Your task to perform on an android device: show emergency info Image 0: 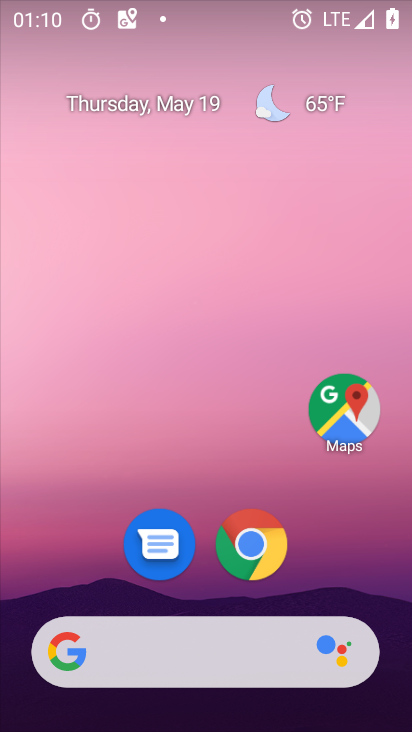
Step 0: drag from (374, 584) to (371, 154)
Your task to perform on an android device: show emergency info Image 1: 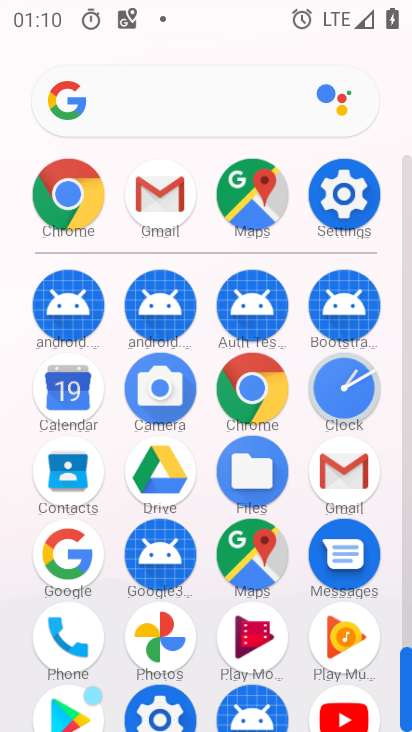
Step 1: click (344, 212)
Your task to perform on an android device: show emergency info Image 2: 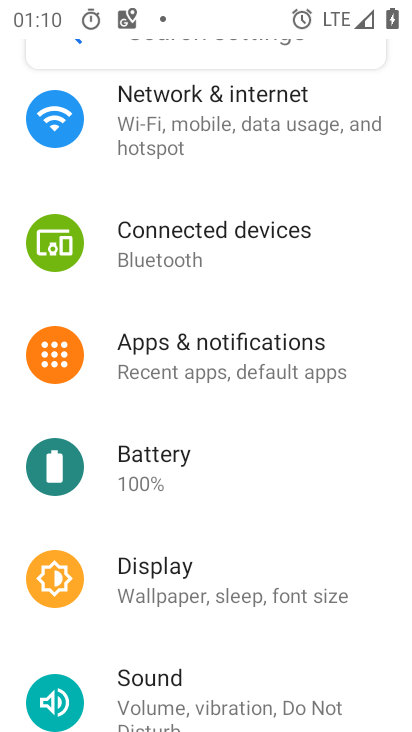
Step 2: drag from (364, 264) to (364, 384)
Your task to perform on an android device: show emergency info Image 3: 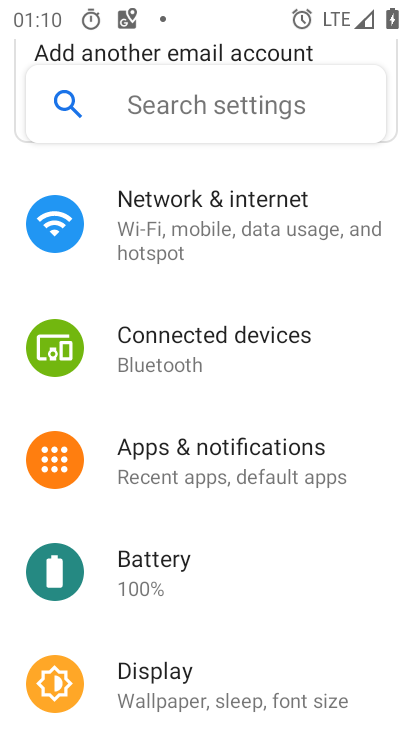
Step 3: drag from (368, 182) to (368, 332)
Your task to perform on an android device: show emergency info Image 4: 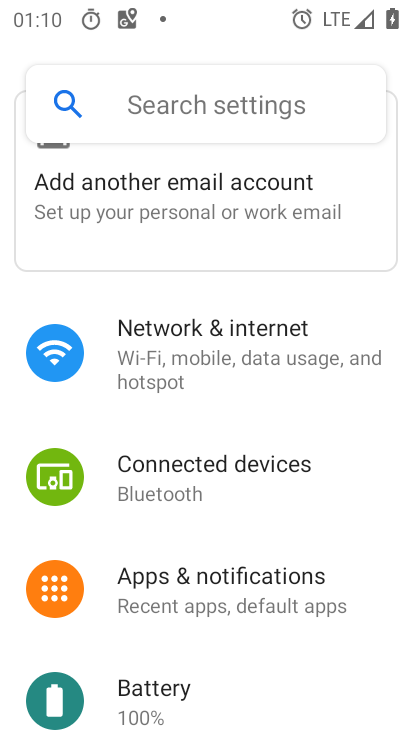
Step 4: drag from (376, 172) to (375, 340)
Your task to perform on an android device: show emergency info Image 5: 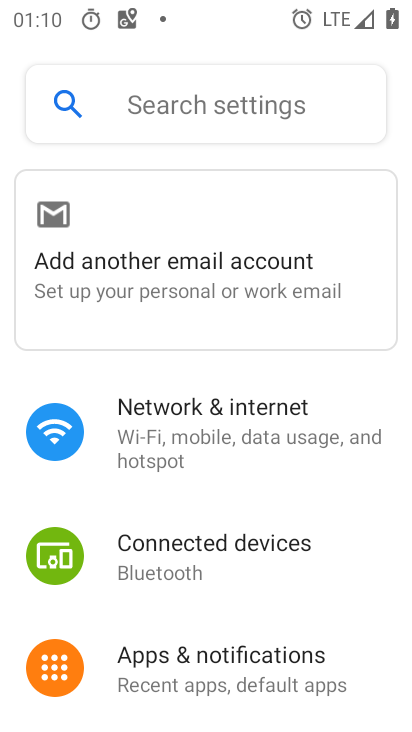
Step 5: drag from (367, 598) to (355, 449)
Your task to perform on an android device: show emergency info Image 6: 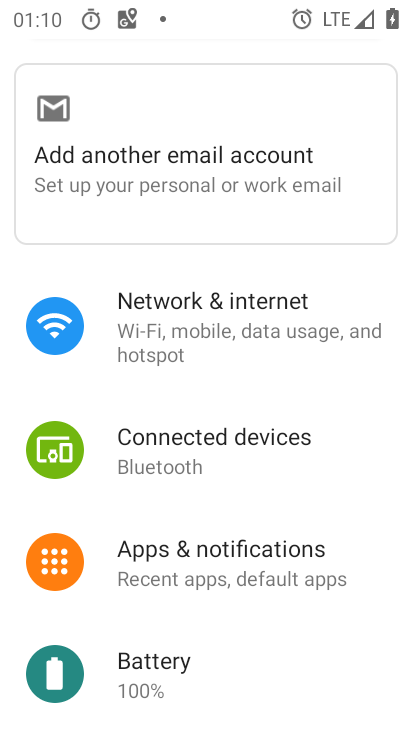
Step 6: drag from (358, 650) to (368, 520)
Your task to perform on an android device: show emergency info Image 7: 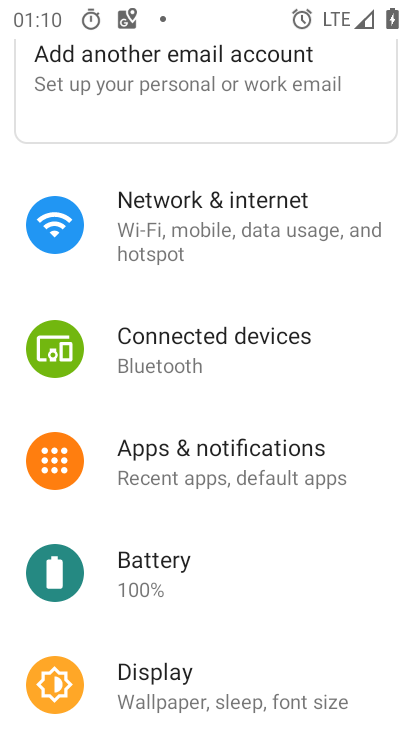
Step 7: drag from (349, 661) to (347, 518)
Your task to perform on an android device: show emergency info Image 8: 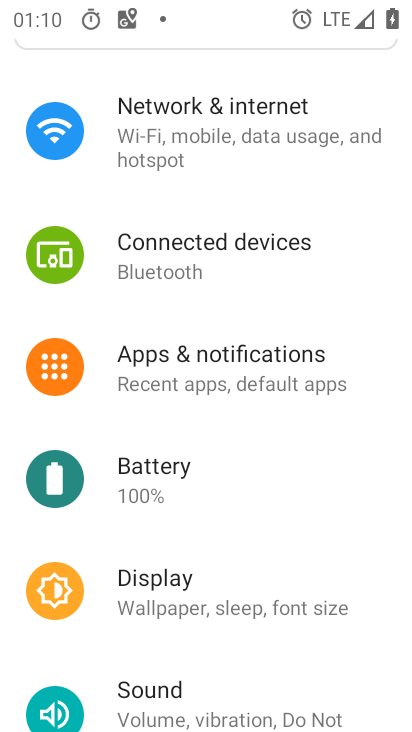
Step 8: drag from (350, 660) to (355, 493)
Your task to perform on an android device: show emergency info Image 9: 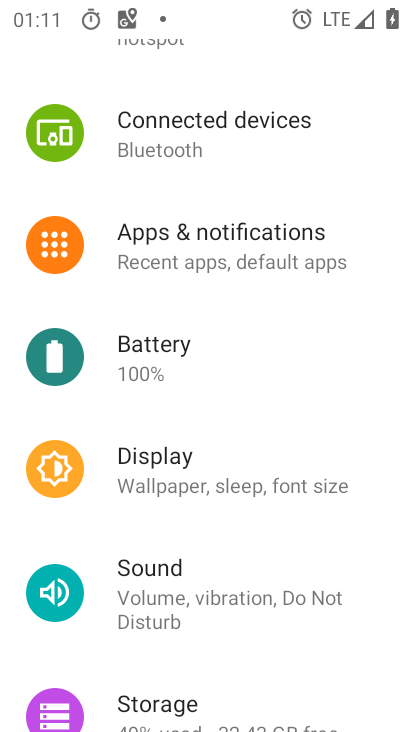
Step 9: drag from (354, 655) to (349, 551)
Your task to perform on an android device: show emergency info Image 10: 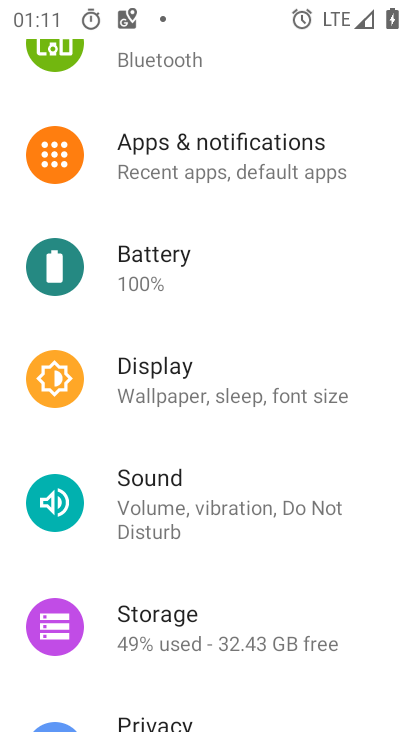
Step 10: drag from (342, 661) to (336, 480)
Your task to perform on an android device: show emergency info Image 11: 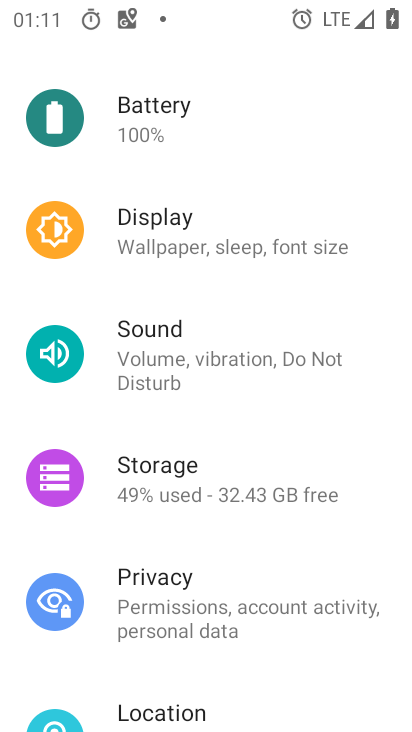
Step 11: drag from (345, 652) to (361, 524)
Your task to perform on an android device: show emergency info Image 12: 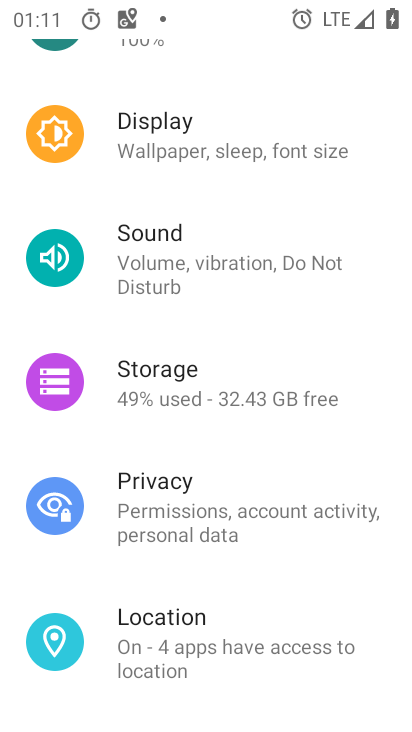
Step 12: drag from (344, 670) to (347, 553)
Your task to perform on an android device: show emergency info Image 13: 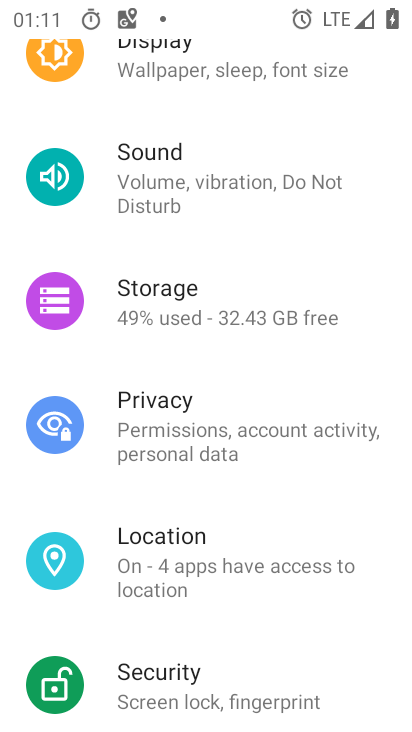
Step 13: drag from (329, 664) to (315, 558)
Your task to perform on an android device: show emergency info Image 14: 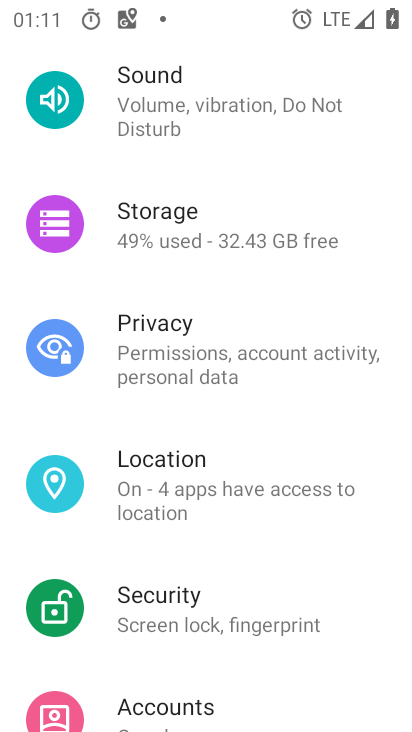
Step 14: drag from (333, 671) to (333, 565)
Your task to perform on an android device: show emergency info Image 15: 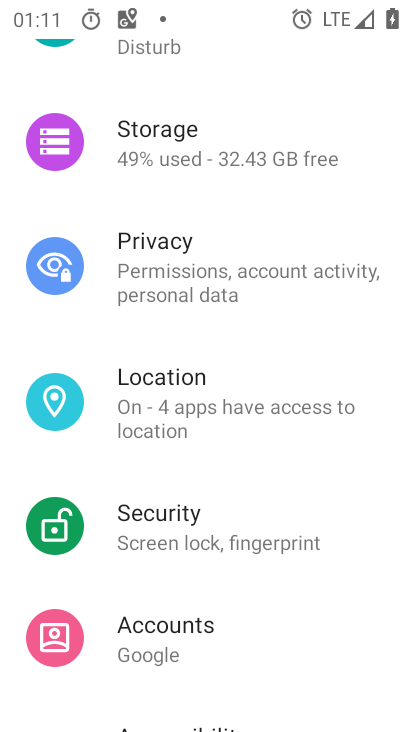
Step 15: drag from (330, 677) to (327, 548)
Your task to perform on an android device: show emergency info Image 16: 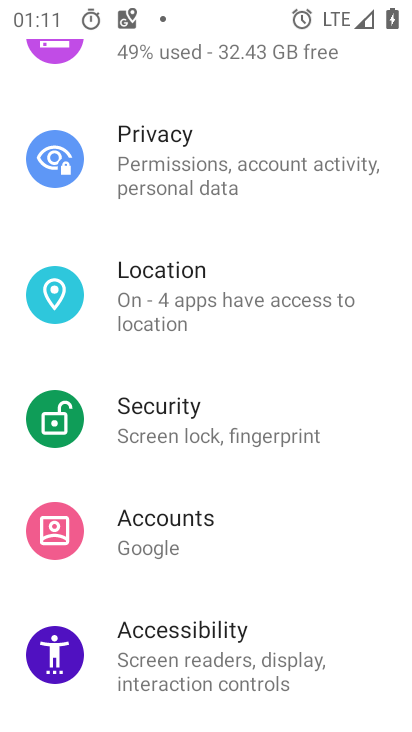
Step 16: drag from (363, 635) to (350, 496)
Your task to perform on an android device: show emergency info Image 17: 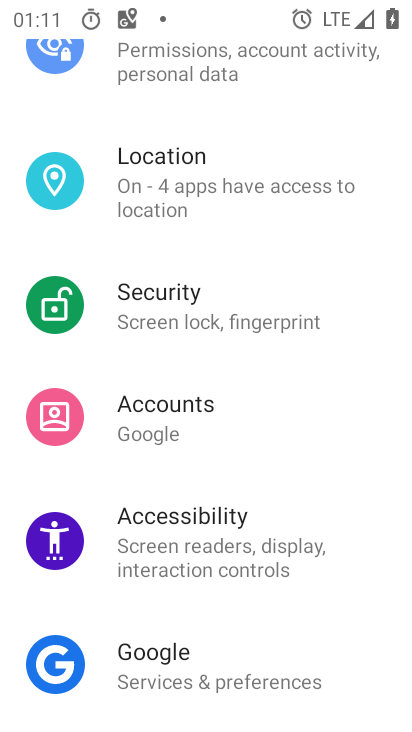
Step 17: drag from (344, 643) to (338, 506)
Your task to perform on an android device: show emergency info Image 18: 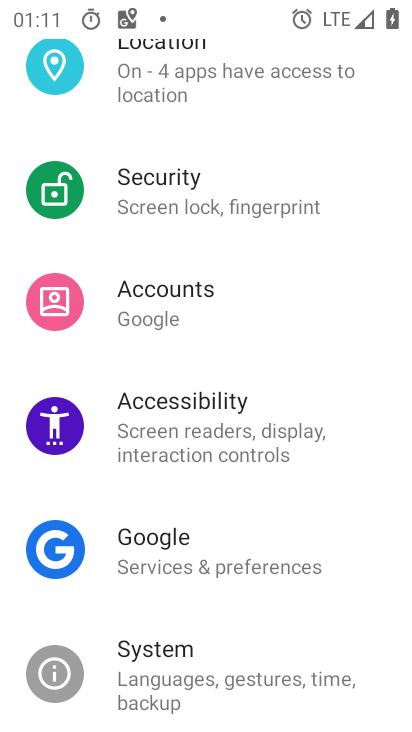
Step 18: drag from (338, 646) to (330, 512)
Your task to perform on an android device: show emergency info Image 19: 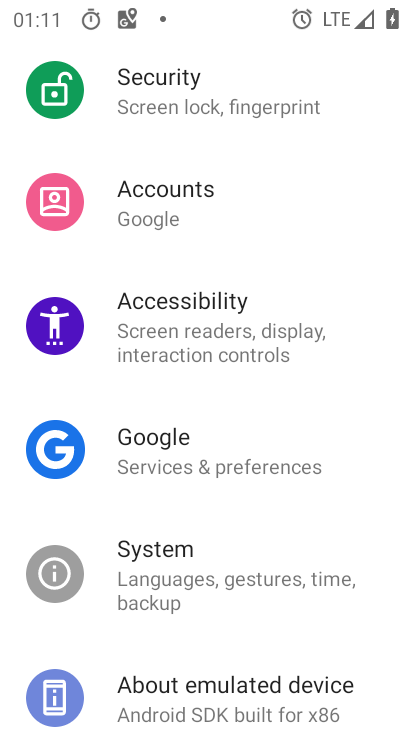
Step 19: drag from (345, 643) to (348, 491)
Your task to perform on an android device: show emergency info Image 20: 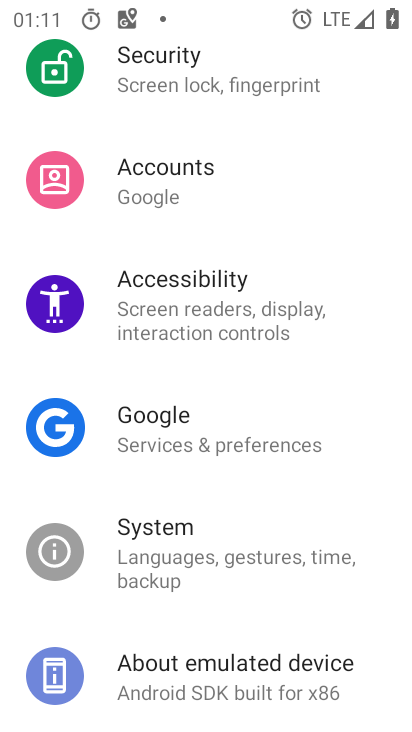
Step 20: click (186, 689)
Your task to perform on an android device: show emergency info Image 21: 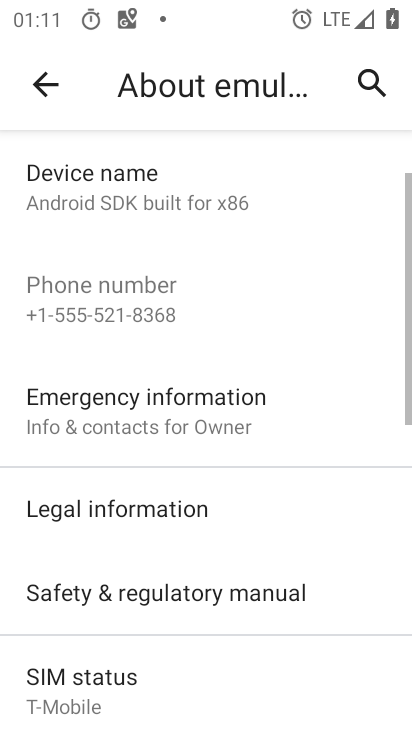
Step 21: drag from (287, 656) to (300, 525)
Your task to perform on an android device: show emergency info Image 22: 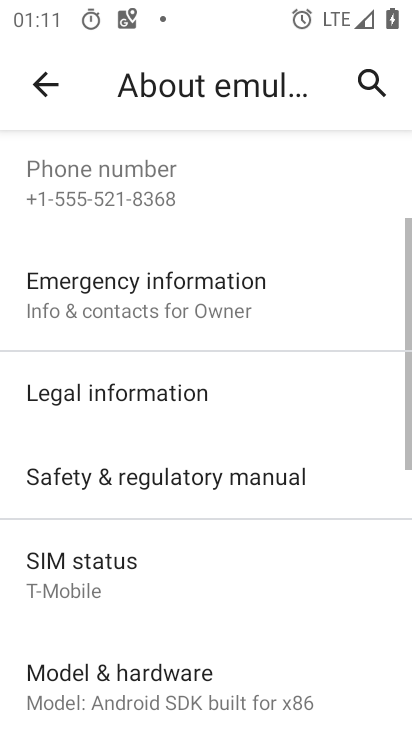
Step 22: click (248, 282)
Your task to perform on an android device: show emergency info Image 23: 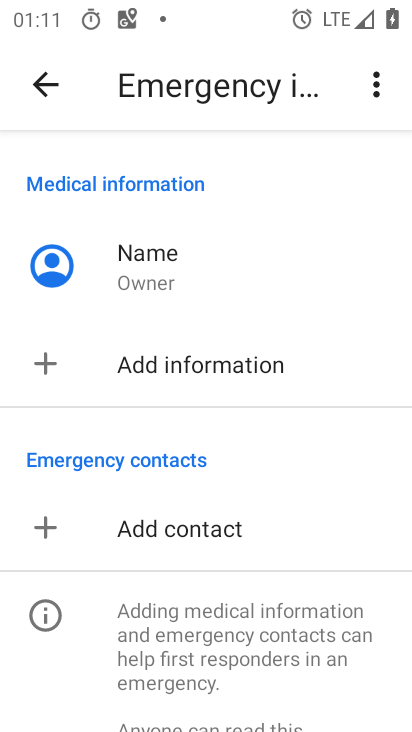
Step 23: task complete